Your task to perform on an android device: toggle data saver in the chrome app Image 0: 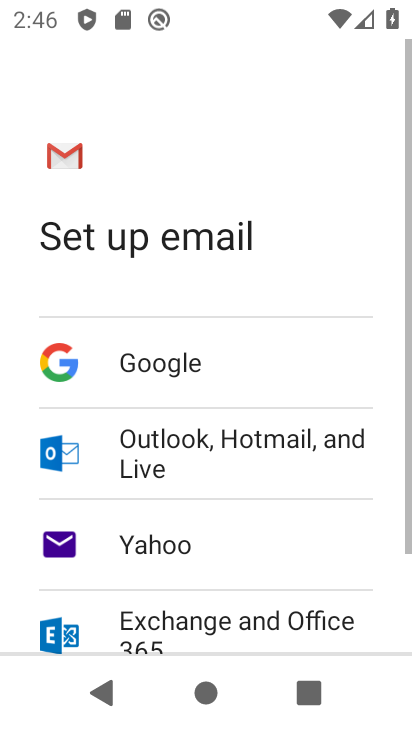
Step 0: press home button
Your task to perform on an android device: toggle data saver in the chrome app Image 1: 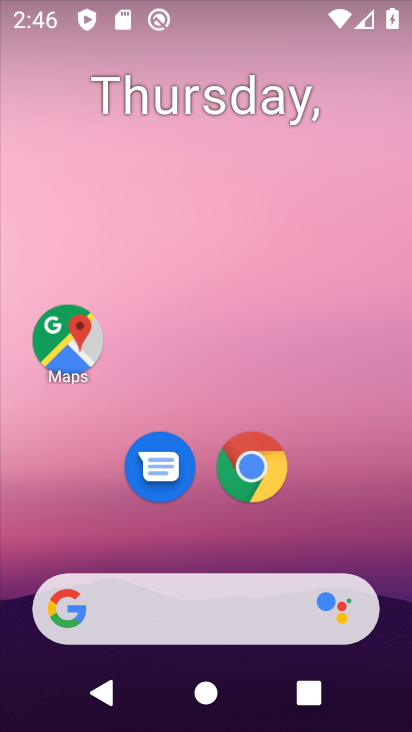
Step 1: click (273, 490)
Your task to perform on an android device: toggle data saver in the chrome app Image 2: 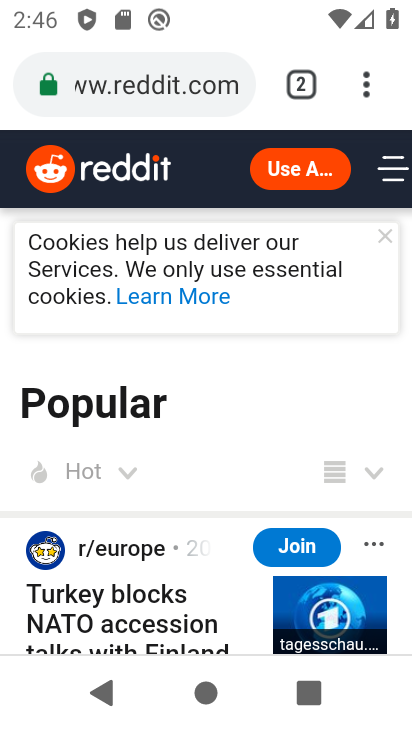
Step 2: click (375, 74)
Your task to perform on an android device: toggle data saver in the chrome app Image 3: 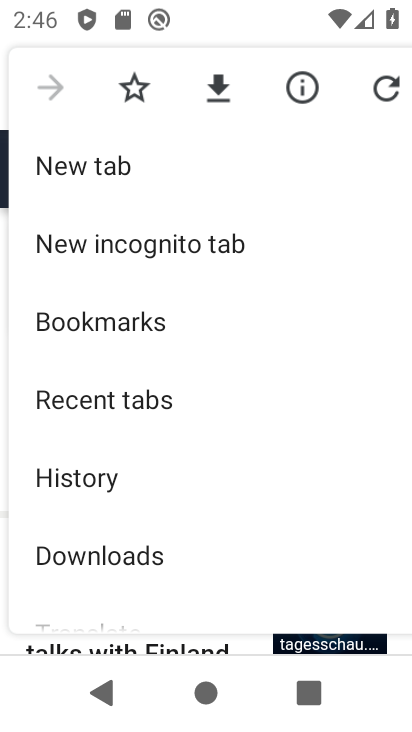
Step 3: drag from (148, 485) to (128, 61)
Your task to perform on an android device: toggle data saver in the chrome app Image 4: 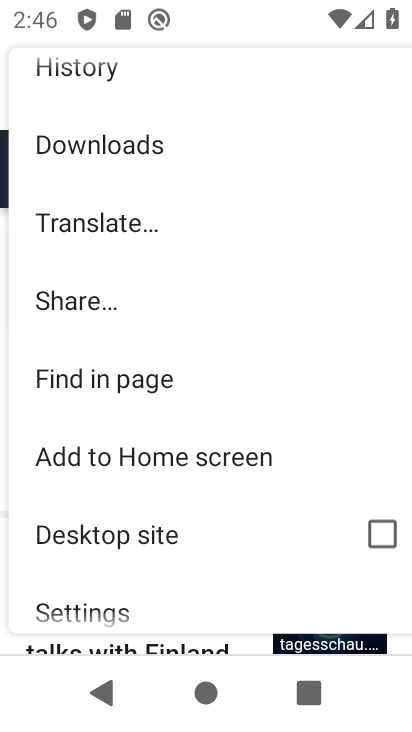
Step 4: click (120, 592)
Your task to perform on an android device: toggle data saver in the chrome app Image 5: 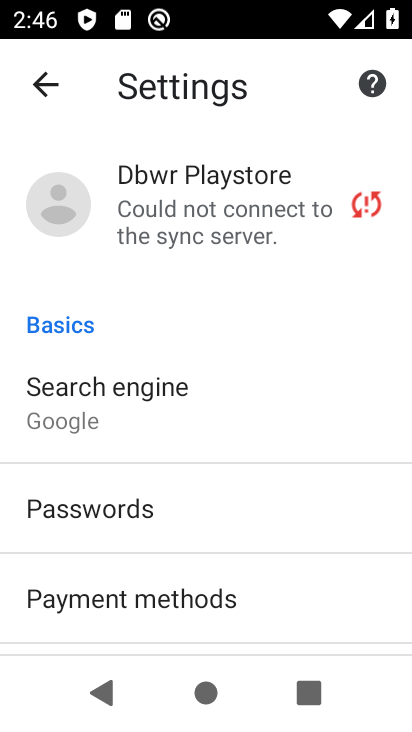
Step 5: drag from (140, 591) to (100, 45)
Your task to perform on an android device: toggle data saver in the chrome app Image 6: 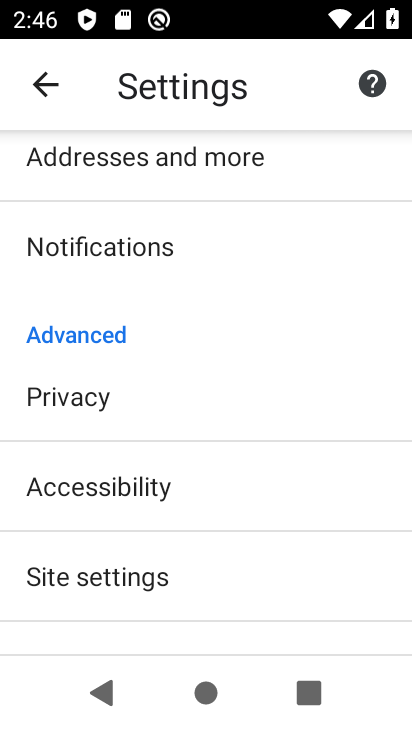
Step 6: drag from (154, 518) to (131, 70)
Your task to perform on an android device: toggle data saver in the chrome app Image 7: 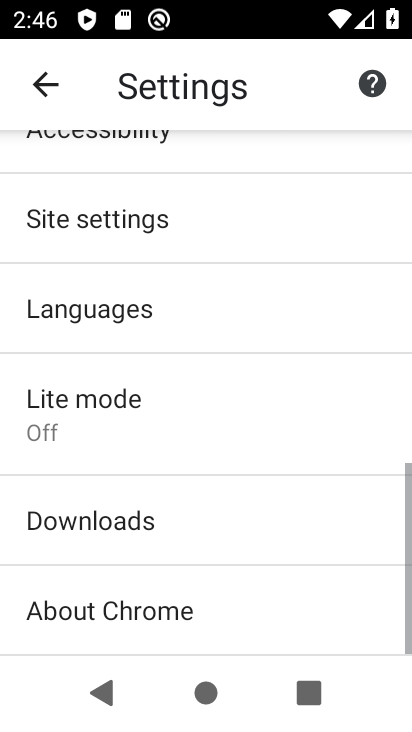
Step 7: click (122, 403)
Your task to perform on an android device: toggle data saver in the chrome app Image 8: 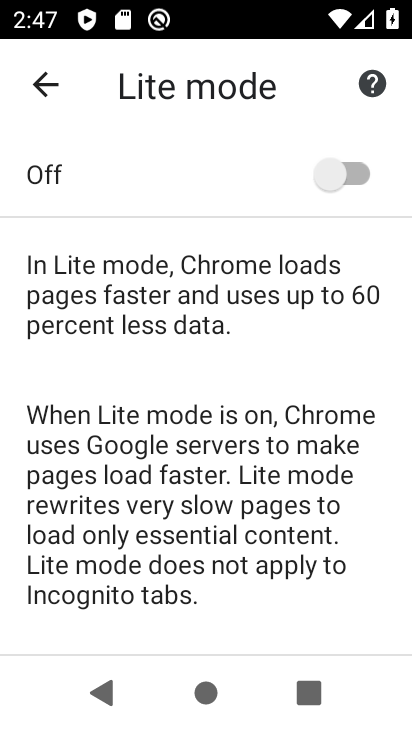
Step 8: click (352, 178)
Your task to perform on an android device: toggle data saver in the chrome app Image 9: 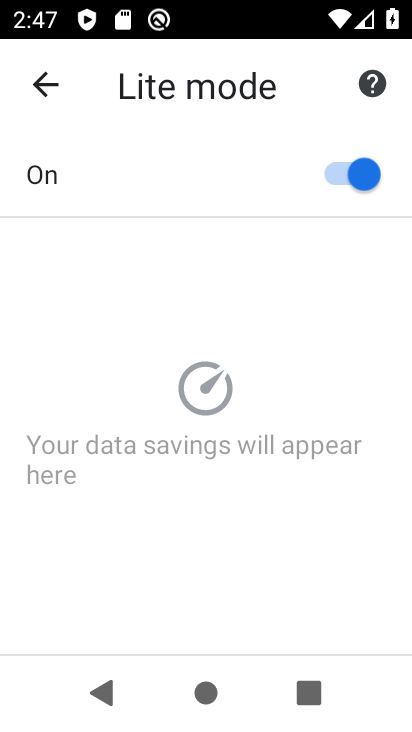
Step 9: task complete